Your task to perform on an android device: Open the calendar app, open the side menu, and click the "Day" option Image 0: 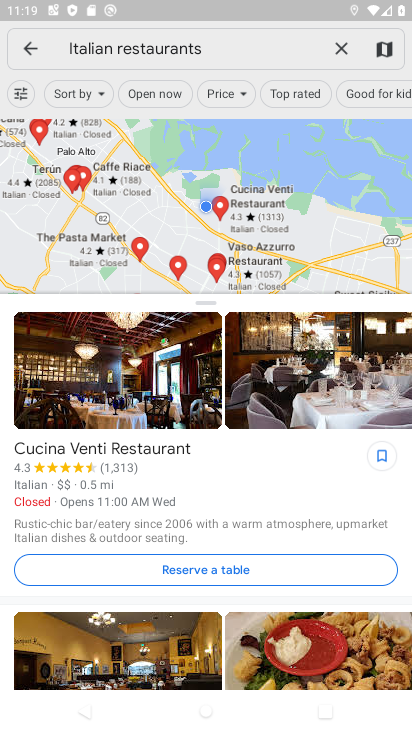
Step 0: press home button
Your task to perform on an android device: Open the calendar app, open the side menu, and click the "Day" option Image 1: 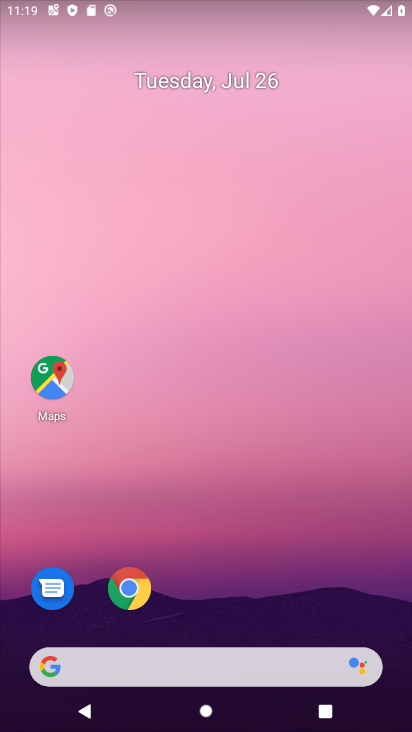
Step 1: drag from (221, 458) to (242, 167)
Your task to perform on an android device: Open the calendar app, open the side menu, and click the "Day" option Image 2: 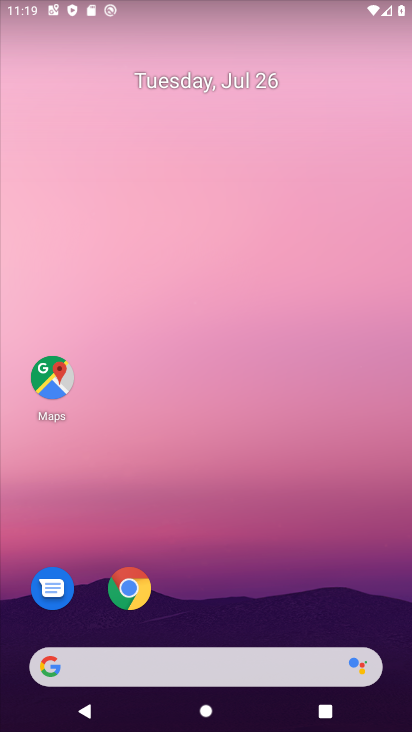
Step 2: drag from (284, 491) to (301, 105)
Your task to perform on an android device: Open the calendar app, open the side menu, and click the "Day" option Image 3: 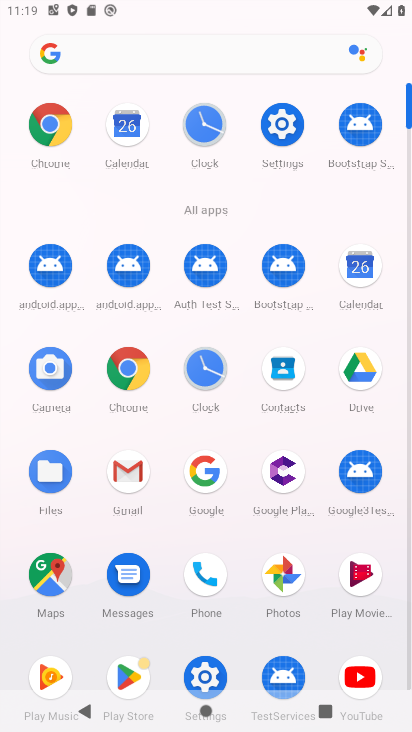
Step 3: click (357, 266)
Your task to perform on an android device: Open the calendar app, open the side menu, and click the "Day" option Image 4: 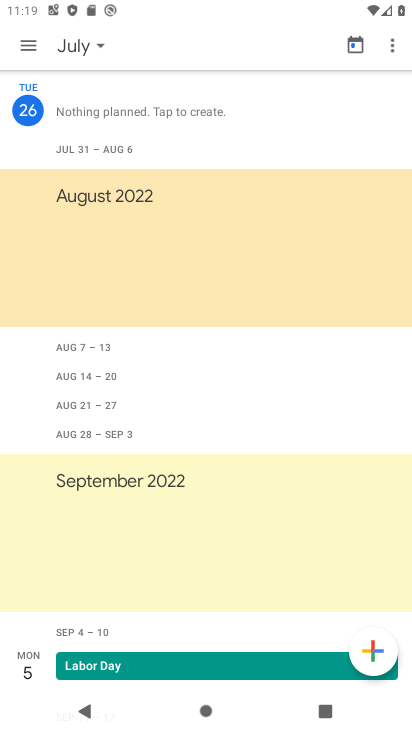
Step 4: click (24, 48)
Your task to perform on an android device: Open the calendar app, open the side menu, and click the "Day" option Image 5: 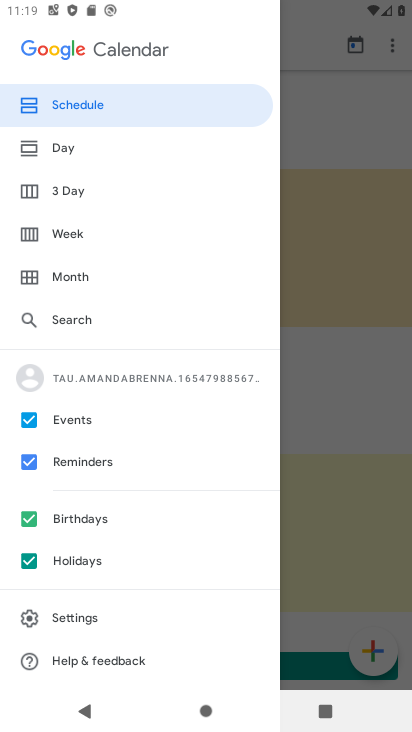
Step 5: click (63, 152)
Your task to perform on an android device: Open the calendar app, open the side menu, and click the "Day" option Image 6: 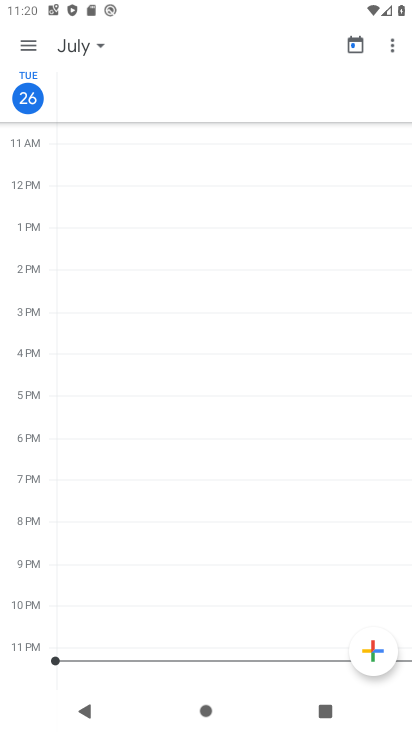
Step 6: task complete